Your task to perform on an android device: stop showing notifications on the lock screen Image 0: 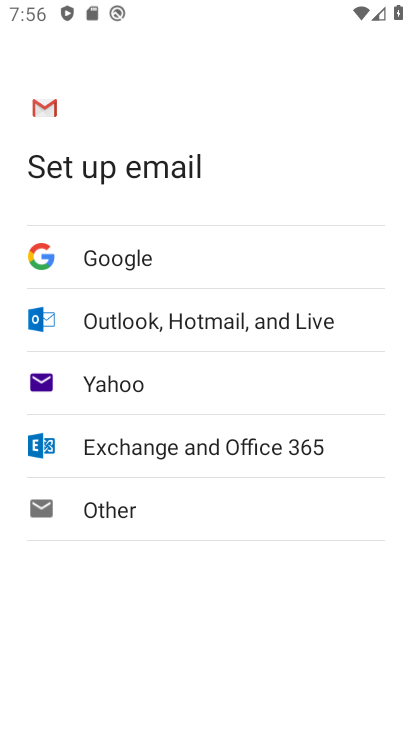
Step 0: press home button
Your task to perform on an android device: stop showing notifications on the lock screen Image 1: 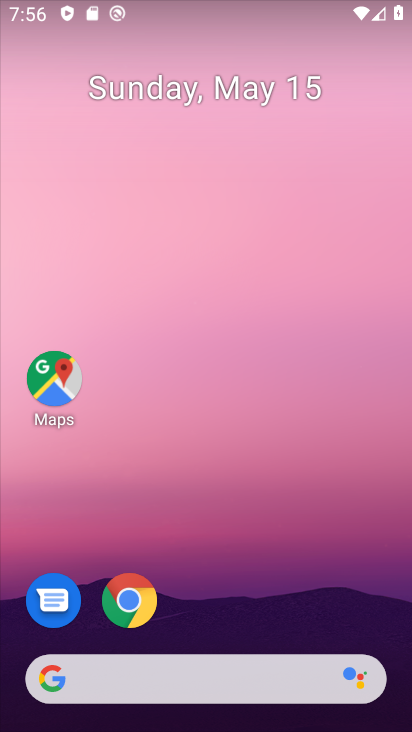
Step 1: drag from (215, 582) to (101, 105)
Your task to perform on an android device: stop showing notifications on the lock screen Image 2: 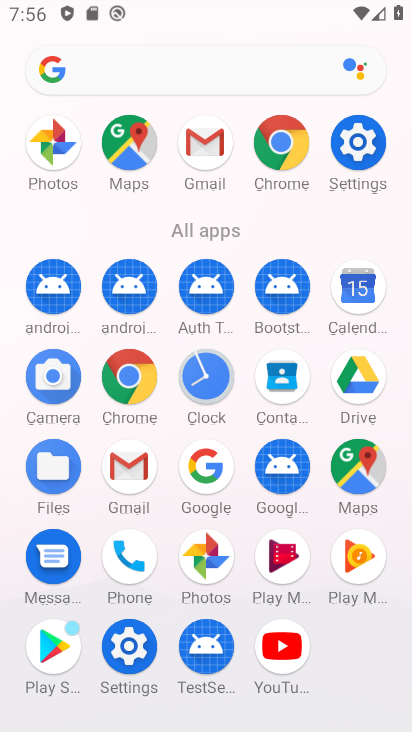
Step 2: click (355, 144)
Your task to perform on an android device: stop showing notifications on the lock screen Image 3: 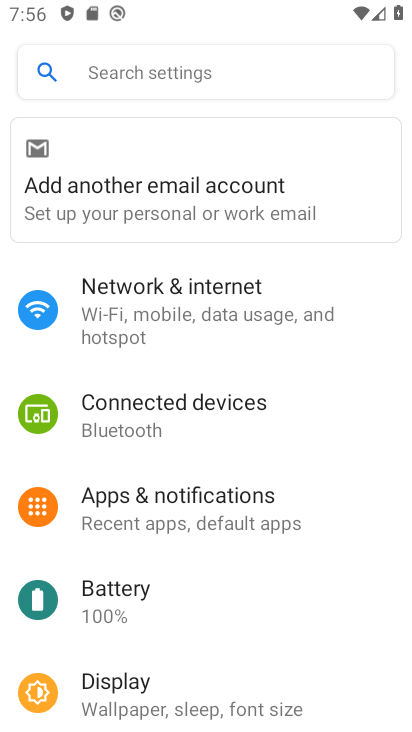
Step 3: drag from (165, 683) to (163, 362)
Your task to perform on an android device: stop showing notifications on the lock screen Image 4: 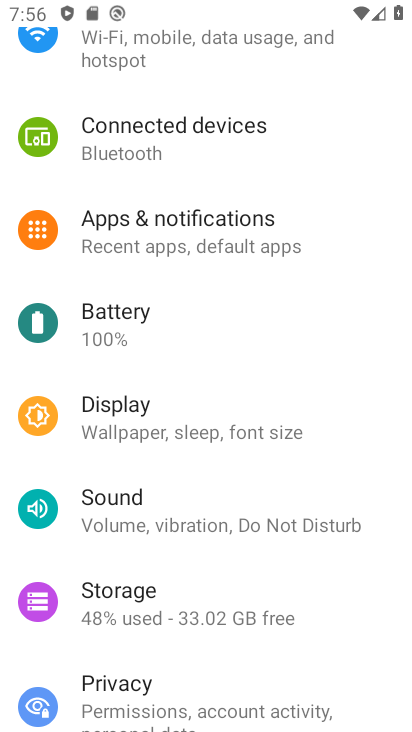
Step 4: click (133, 255)
Your task to perform on an android device: stop showing notifications on the lock screen Image 5: 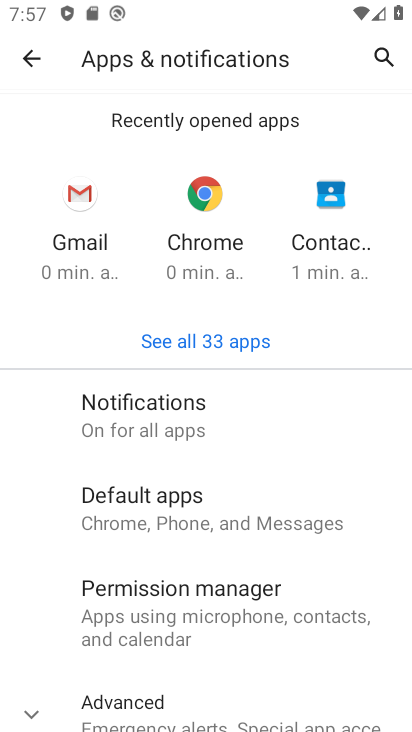
Step 5: click (151, 423)
Your task to perform on an android device: stop showing notifications on the lock screen Image 6: 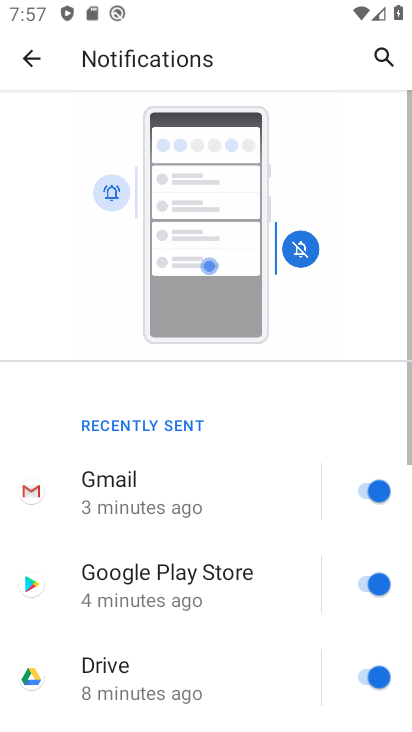
Step 6: drag from (120, 668) to (117, 340)
Your task to perform on an android device: stop showing notifications on the lock screen Image 7: 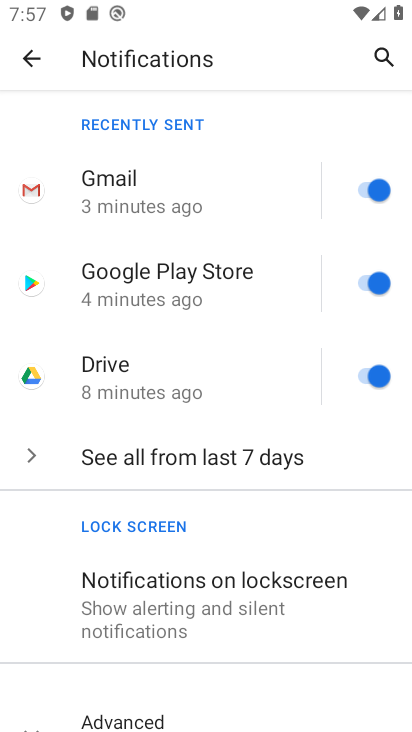
Step 7: click (140, 589)
Your task to perform on an android device: stop showing notifications on the lock screen Image 8: 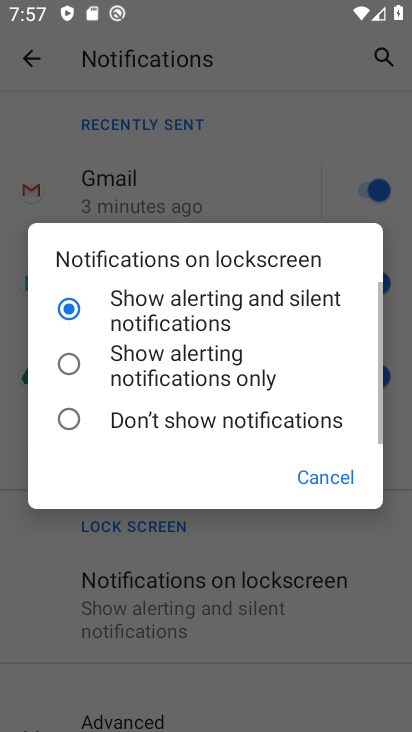
Step 8: click (80, 434)
Your task to perform on an android device: stop showing notifications on the lock screen Image 9: 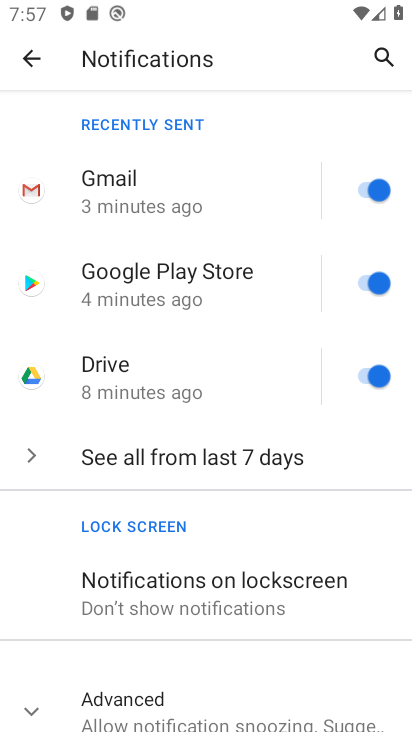
Step 9: task complete